Your task to perform on an android device: Open location settings Image 0: 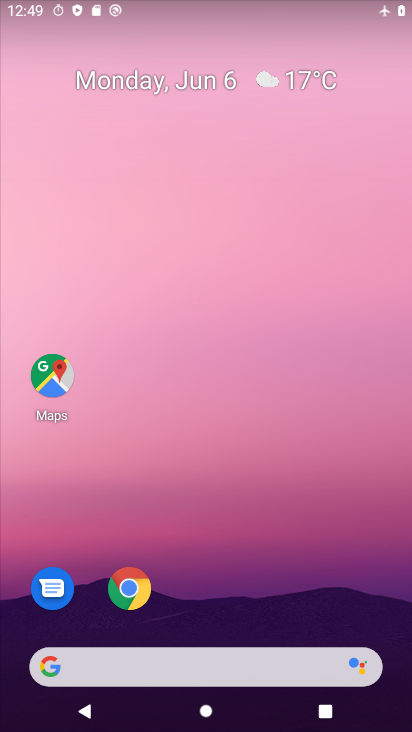
Step 0: drag from (276, 558) to (244, 126)
Your task to perform on an android device: Open location settings Image 1: 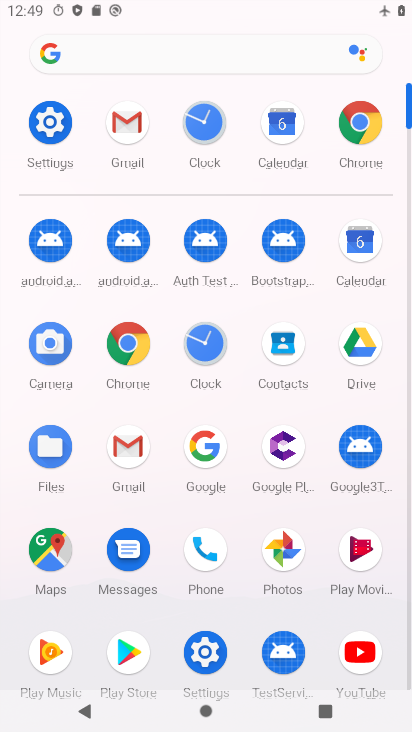
Step 1: click (50, 113)
Your task to perform on an android device: Open location settings Image 2: 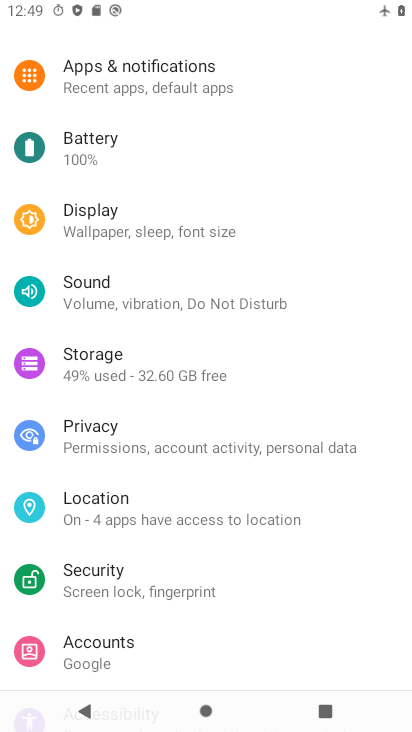
Step 2: click (196, 513)
Your task to perform on an android device: Open location settings Image 3: 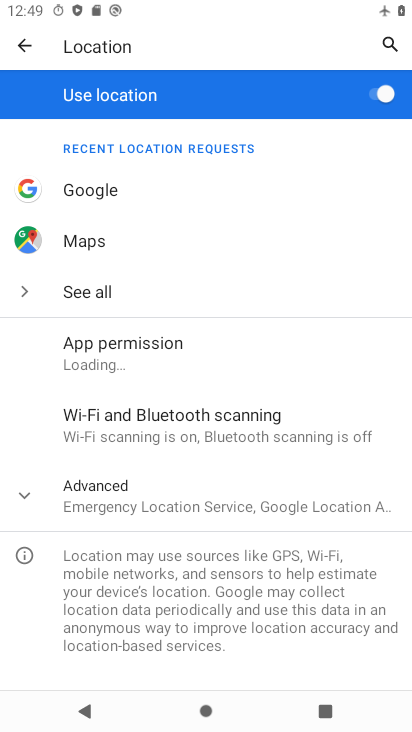
Step 3: task complete